Your task to perform on an android device: turn off javascript in the chrome app Image 0: 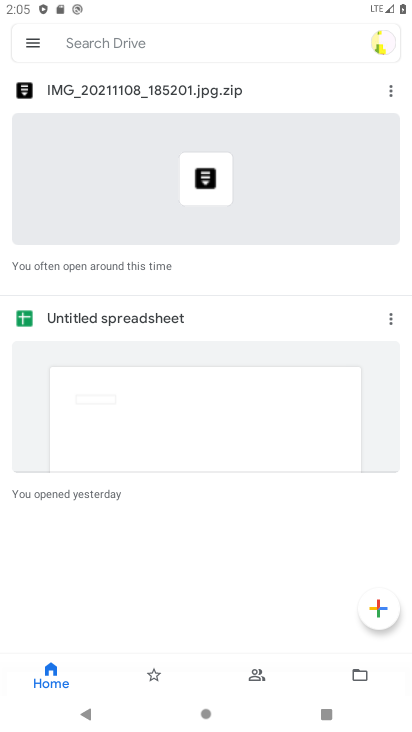
Step 0: press home button
Your task to perform on an android device: turn off javascript in the chrome app Image 1: 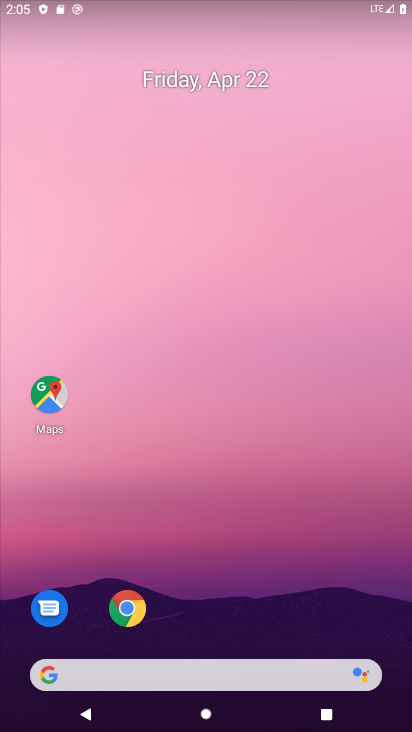
Step 1: drag from (256, 678) to (222, 183)
Your task to perform on an android device: turn off javascript in the chrome app Image 2: 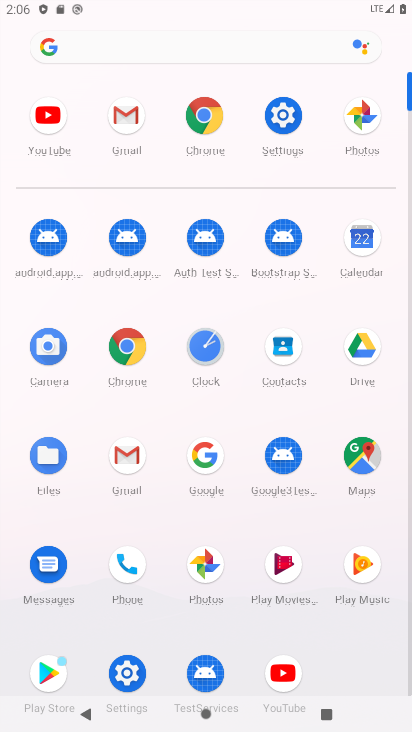
Step 2: click (124, 337)
Your task to perform on an android device: turn off javascript in the chrome app Image 3: 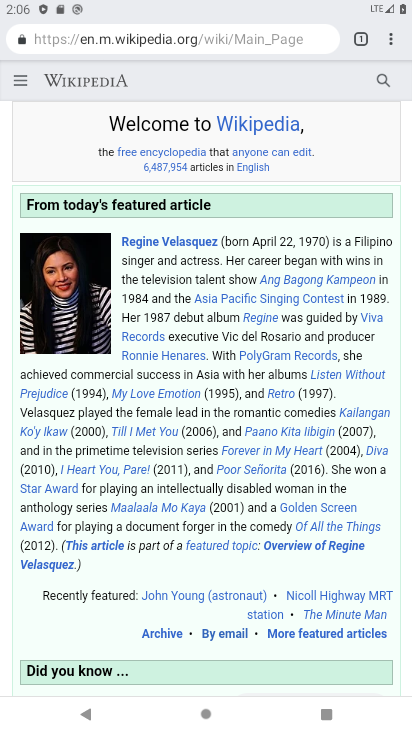
Step 3: click (383, 44)
Your task to perform on an android device: turn off javascript in the chrome app Image 4: 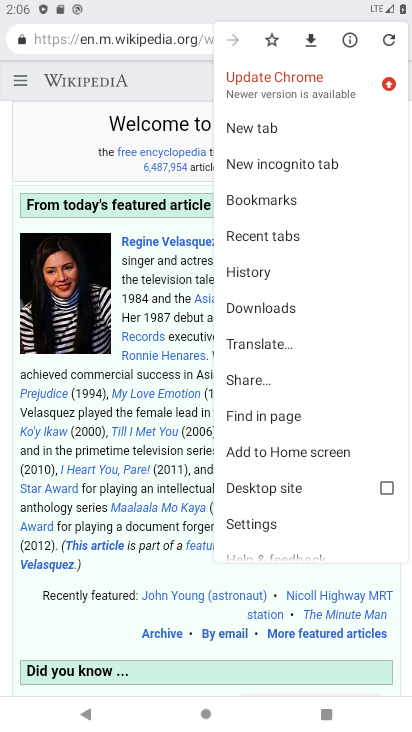
Step 4: click (252, 522)
Your task to perform on an android device: turn off javascript in the chrome app Image 5: 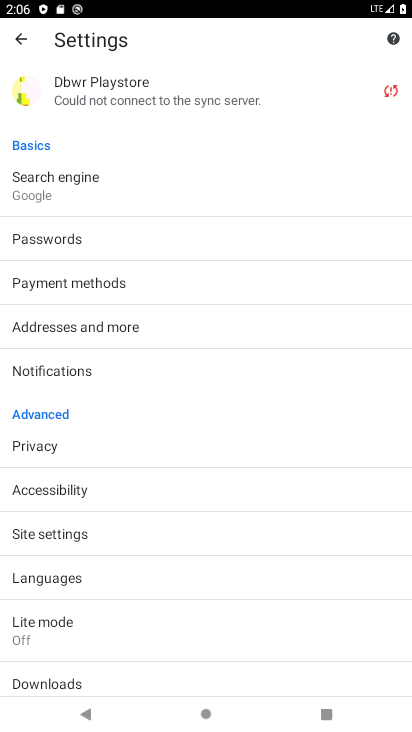
Step 5: drag from (207, 549) to (224, 354)
Your task to perform on an android device: turn off javascript in the chrome app Image 6: 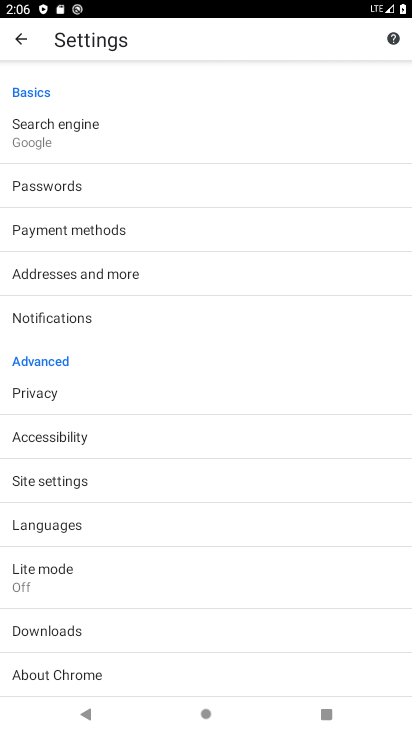
Step 6: drag from (165, 476) to (199, 344)
Your task to perform on an android device: turn off javascript in the chrome app Image 7: 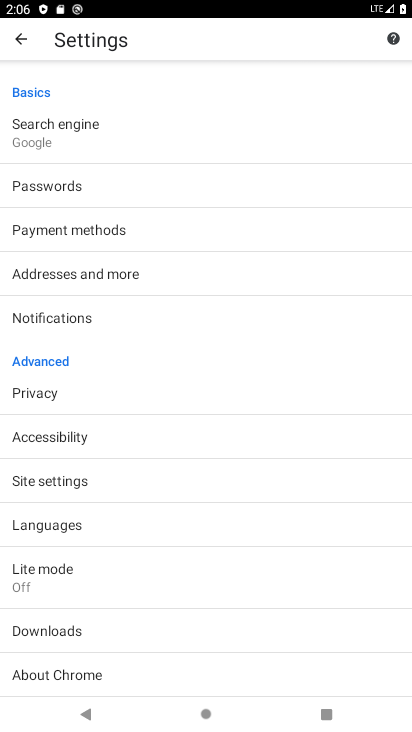
Step 7: click (69, 489)
Your task to perform on an android device: turn off javascript in the chrome app Image 8: 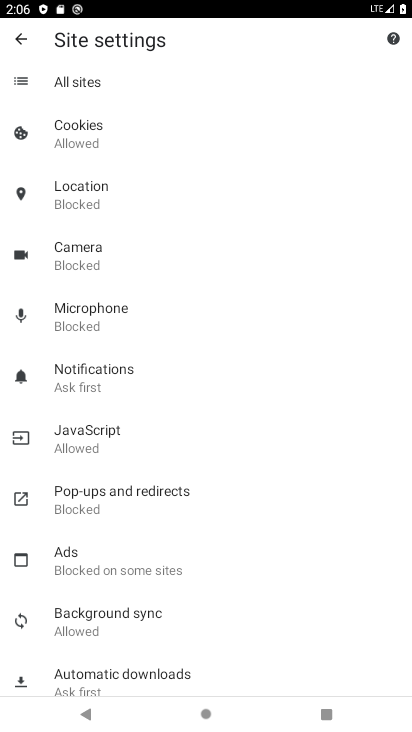
Step 8: click (111, 436)
Your task to perform on an android device: turn off javascript in the chrome app Image 9: 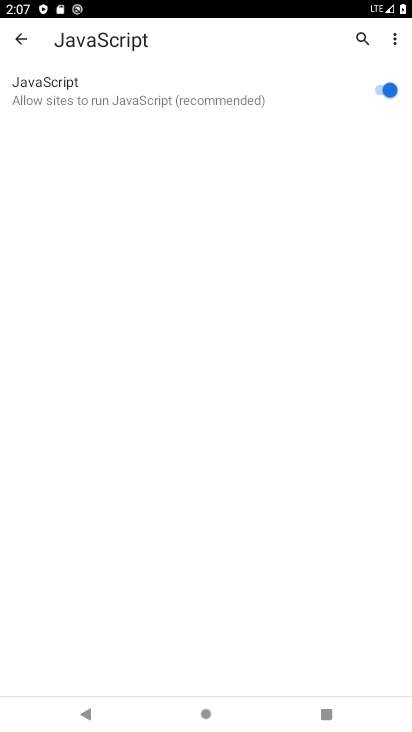
Step 9: click (329, 95)
Your task to perform on an android device: turn off javascript in the chrome app Image 10: 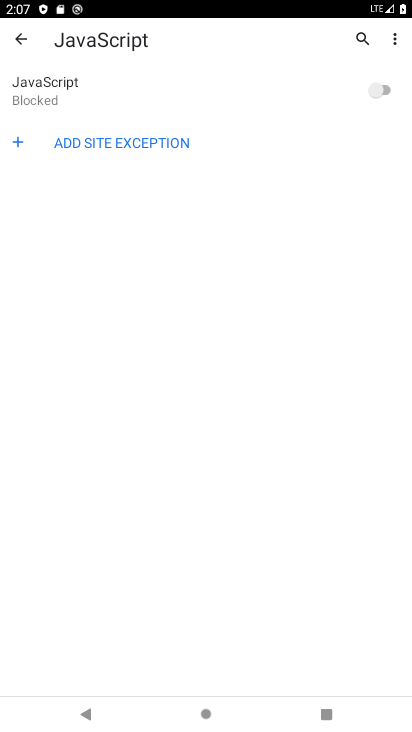
Step 10: task complete